Your task to perform on an android device: Open my contact list Image 0: 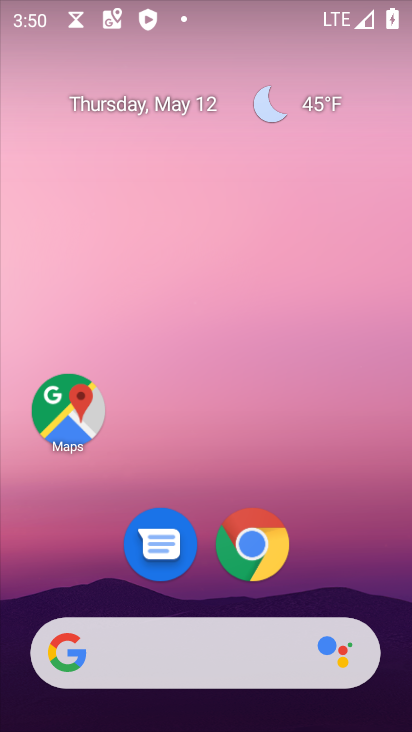
Step 0: drag from (350, 596) to (319, 158)
Your task to perform on an android device: Open my contact list Image 1: 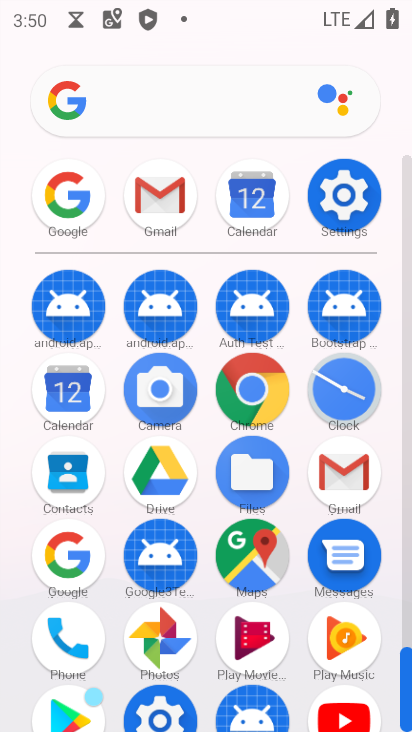
Step 1: click (55, 475)
Your task to perform on an android device: Open my contact list Image 2: 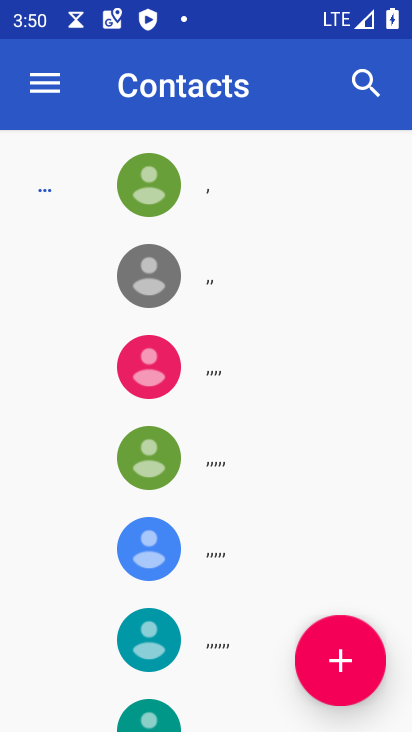
Step 2: task complete